Your task to perform on an android device: Show me recent news Image 0: 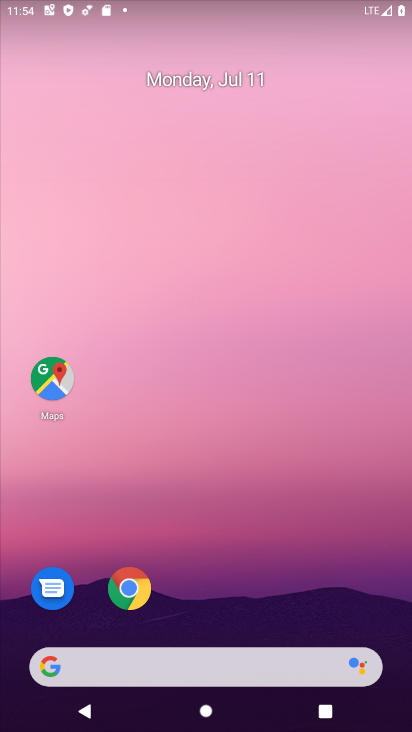
Step 0: drag from (262, 591) to (270, 149)
Your task to perform on an android device: Show me recent news Image 1: 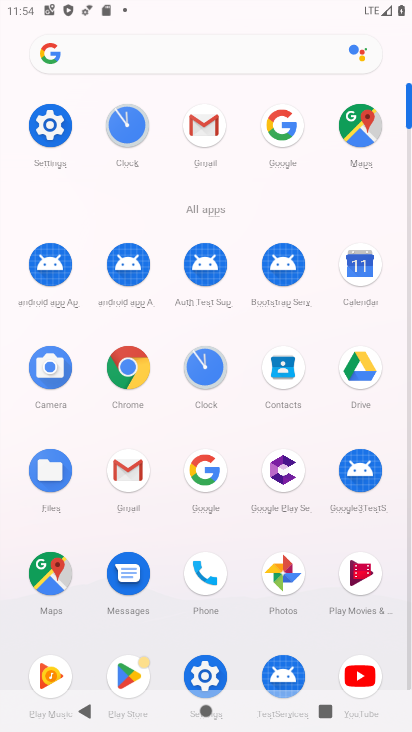
Step 1: click (127, 366)
Your task to perform on an android device: Show me recent news Image 2: 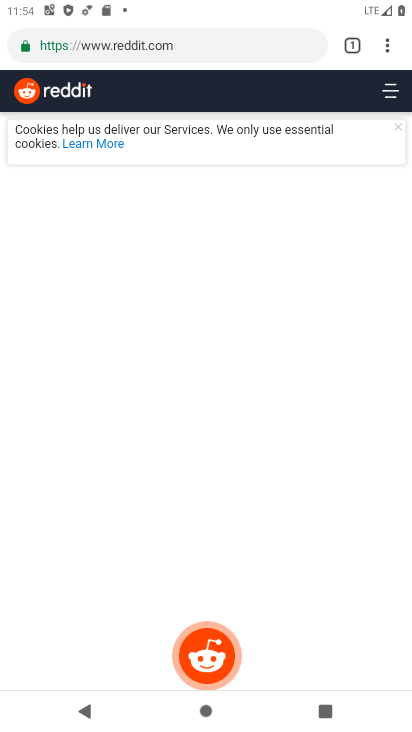
Step 2: click (211, 44)
Your task to perform on an android device: Show me recent news Image 3: 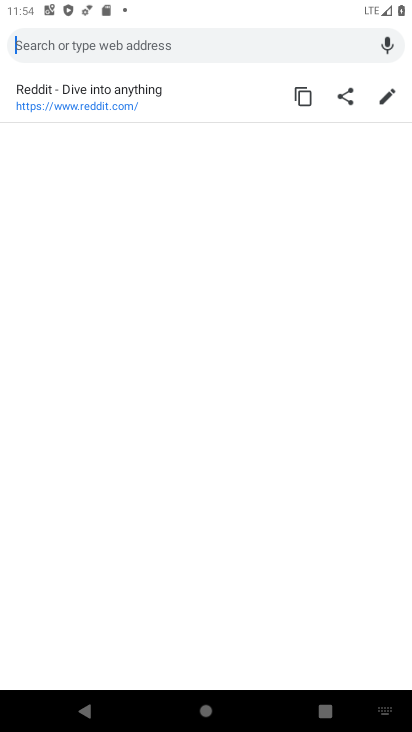
Step 3: type "news"
Your task to perform on an android device: Show me recent news Image 4: 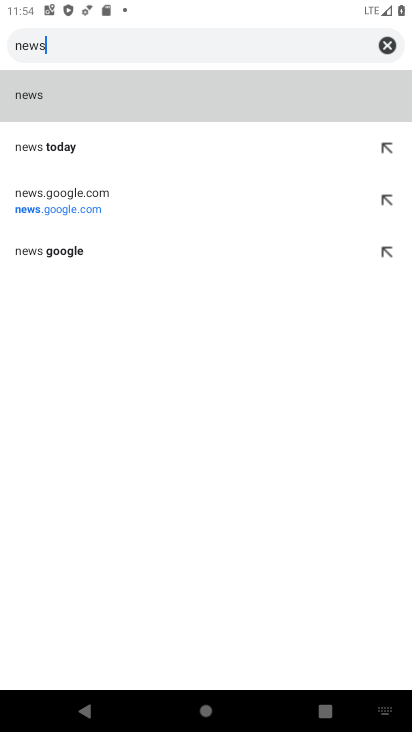
Step 4: click (69, 204)
Your task to perform on an android device: Show me recent news Image 5: 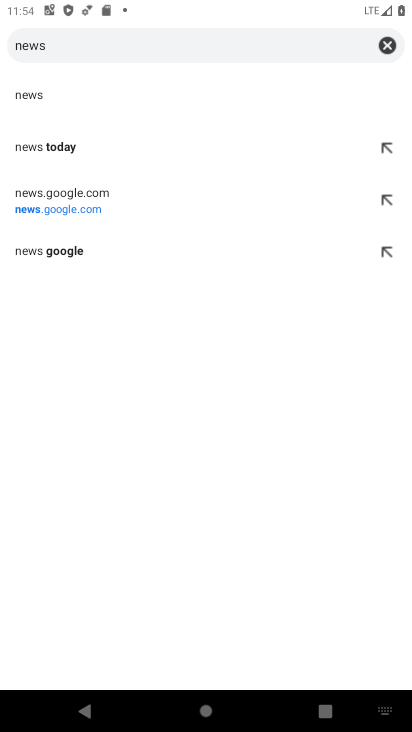
Step 5: click (86, 202)
Your task to perform on an android device: Show me recent news Image 6: 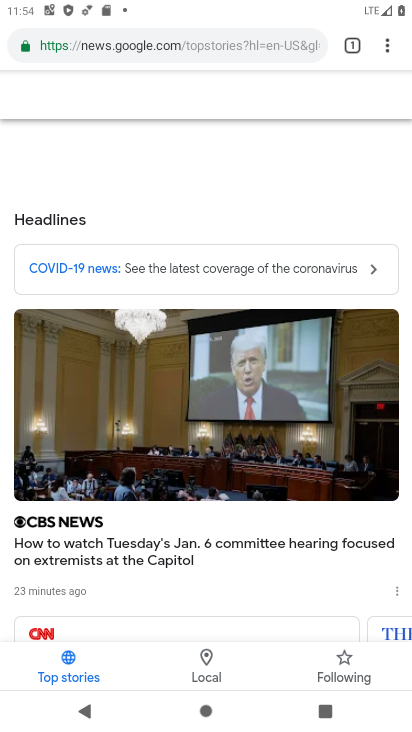
Step 6: task complete